Your task to perform on an android device: Open sound settings Image 0: 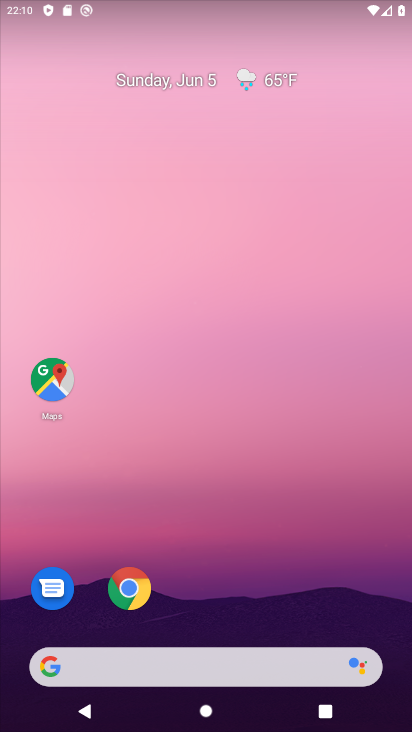
Step 0: drag from (189, 630) to (319, 113)
Your task to perform on an android device: Open sound settings Image 1: 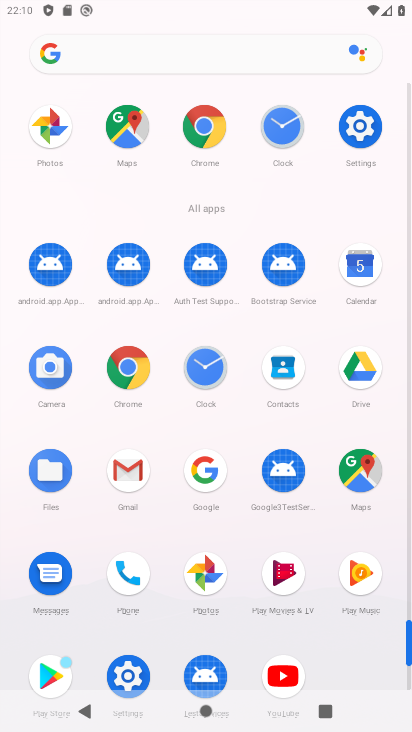
Step 1: click (134, 678)
Your task to perform on an android device: Open sound settings Image 2: 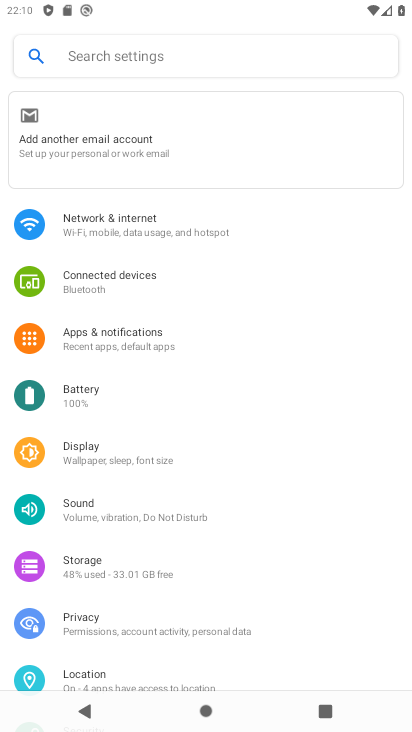
Step 2: click (103, 518)
Your task to perform on an android device: Open sound settings Image 3: 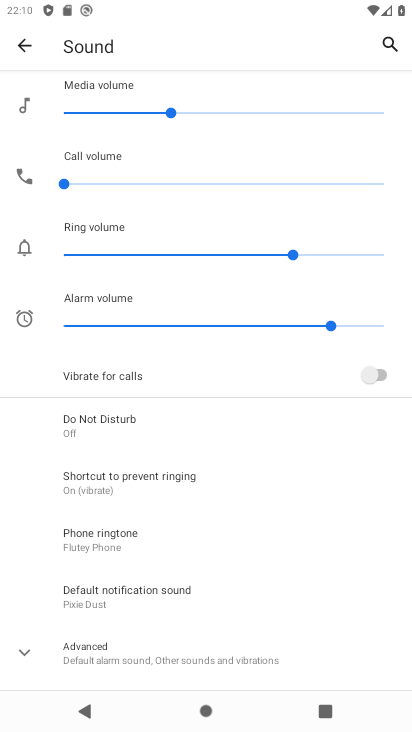
Step 3: task complete